Your task to perform on an android device: Find coffee shops on Maps Image 0: 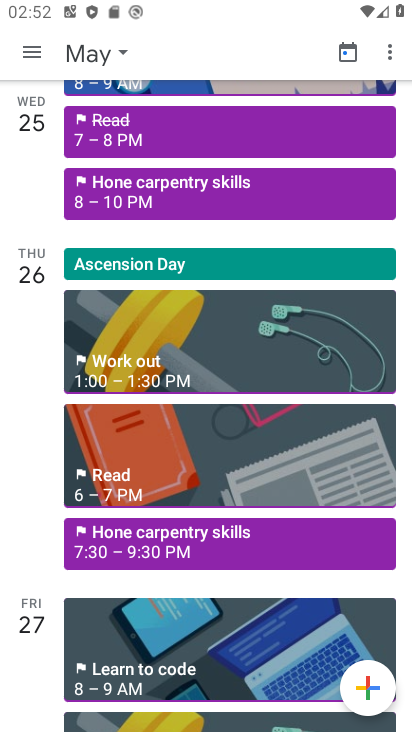
Step 0: press home button
Your task to perform on an android device: Find coffee shops on Maps Image 1: 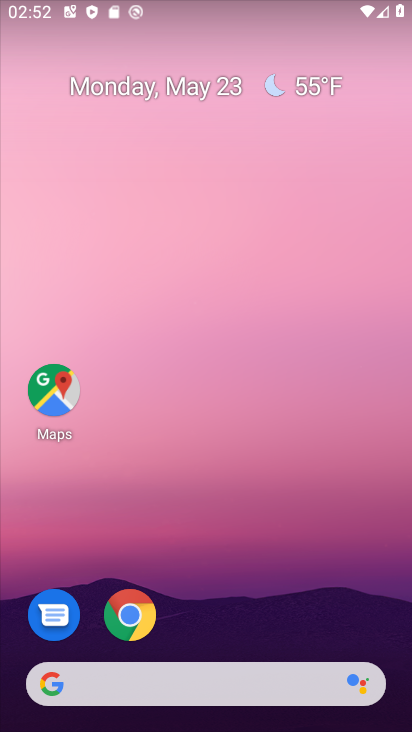
Step 1: drag from (377, 625) to (382, 225)
Your task to perform on an android device: Find coffee shops on Maps Image 2: 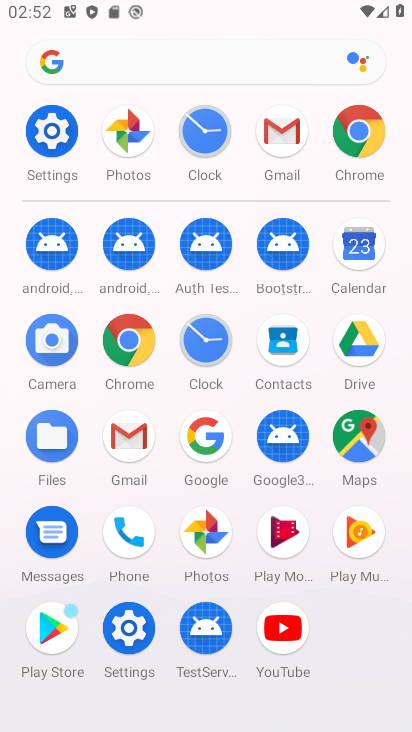
Step 2: click (357, 439)
Your task to perform on an android device: Find coffee shops on Maps Image 3: 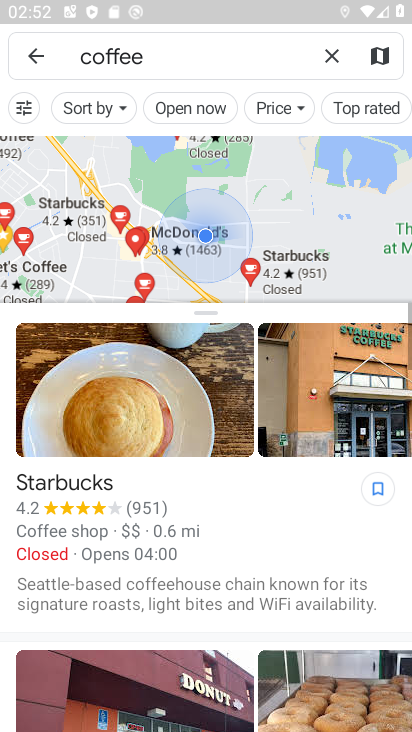
Step 3: task complete